Your task to perform on an android device: Search for a 3d printer on aliexpress Image 0: 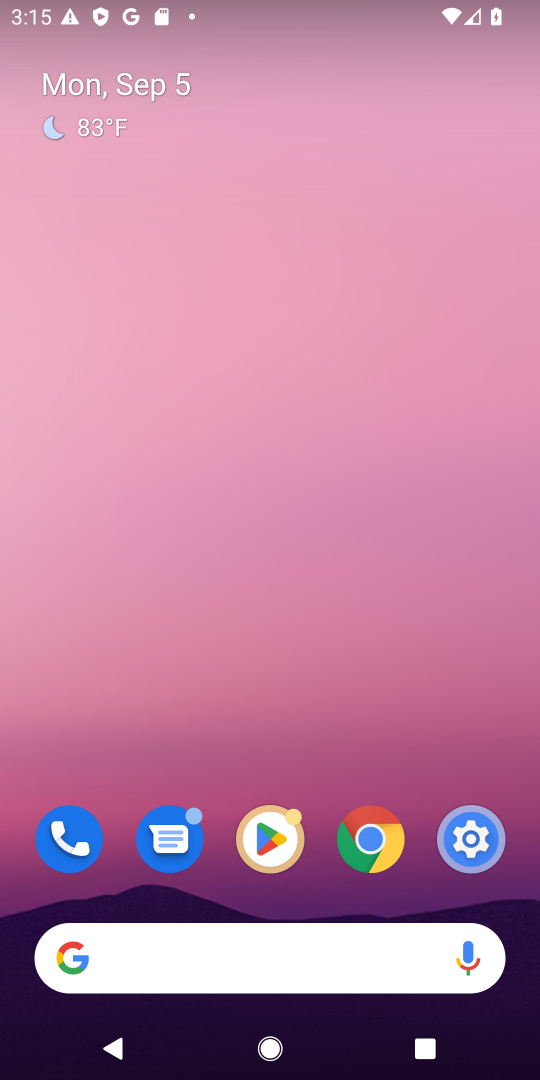
Step 0: click (306, 951)
Your task to perform on an android device: Search for a 3d printer on aliexpress Image 1: 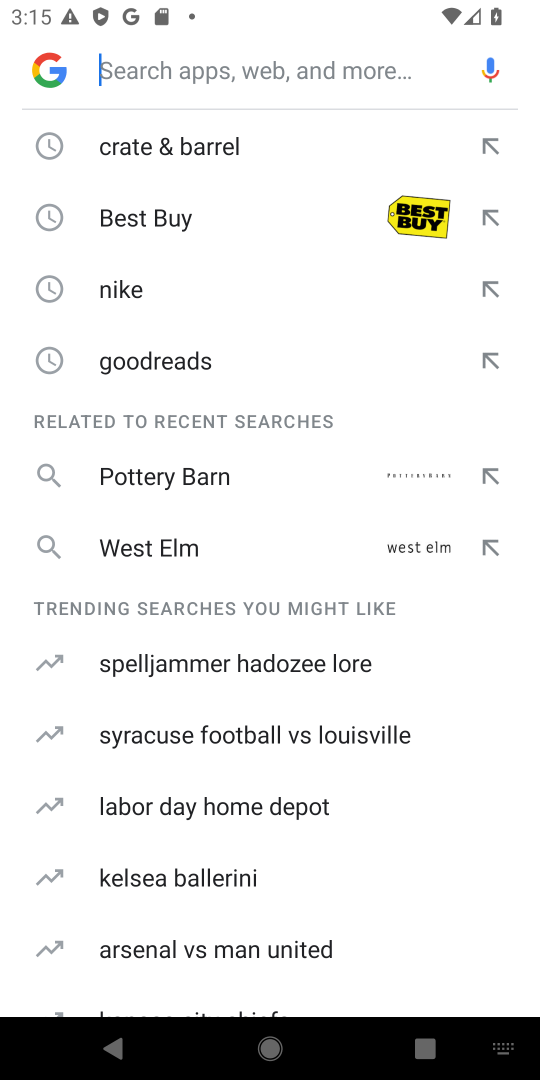
Step 1: click (187, 76)
Your task to perform on an android device: Search for a 3d printer on aliexpress Image 2: 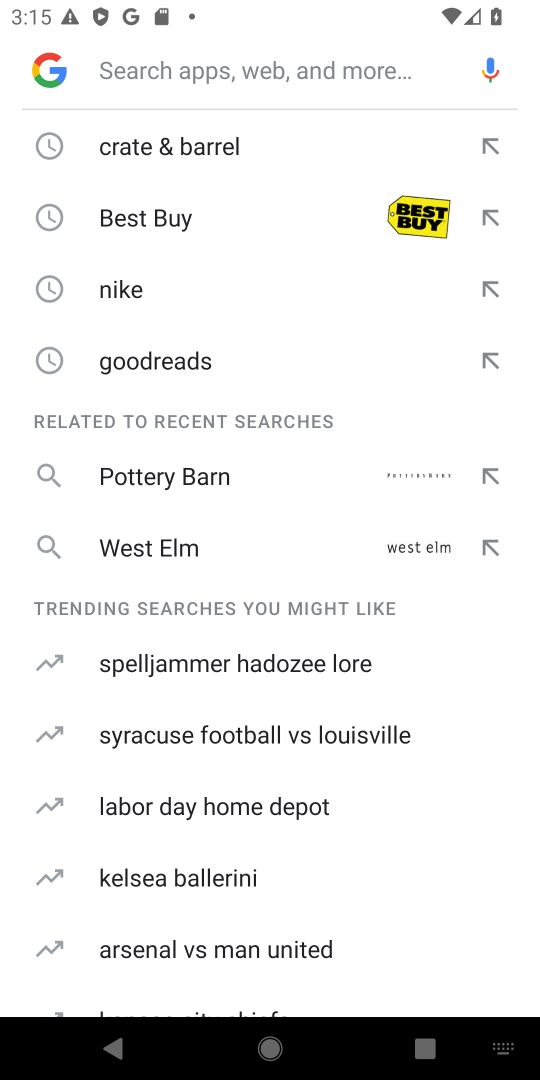
Step 2: type "aliexpress"
Your task to perform on an android device: Search for a 3d printer on aliexpress Image 3: 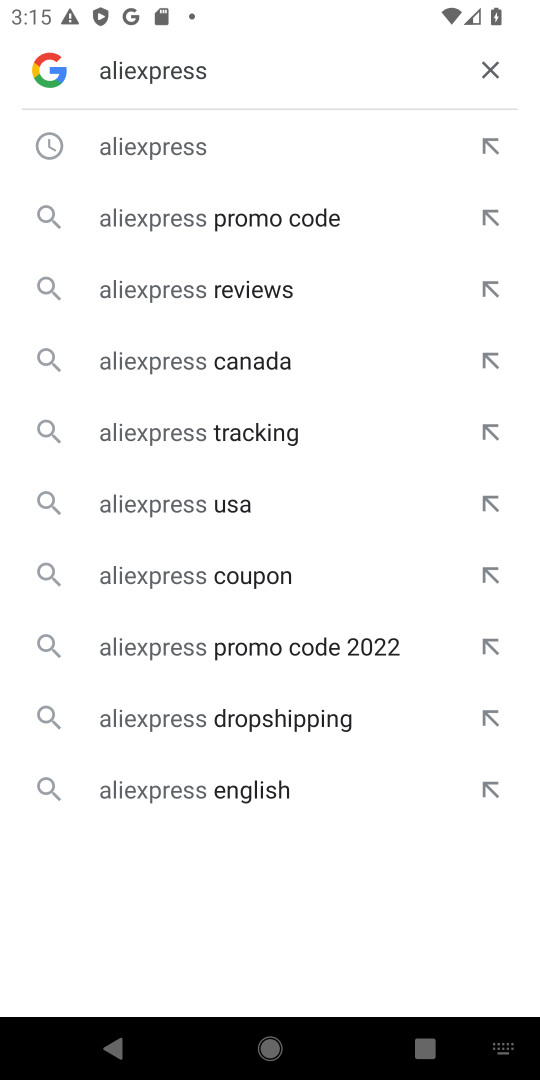
Step 3: press enter
Your task to perform on an android device: Search for a 3d printer on aliexpress Image 4: 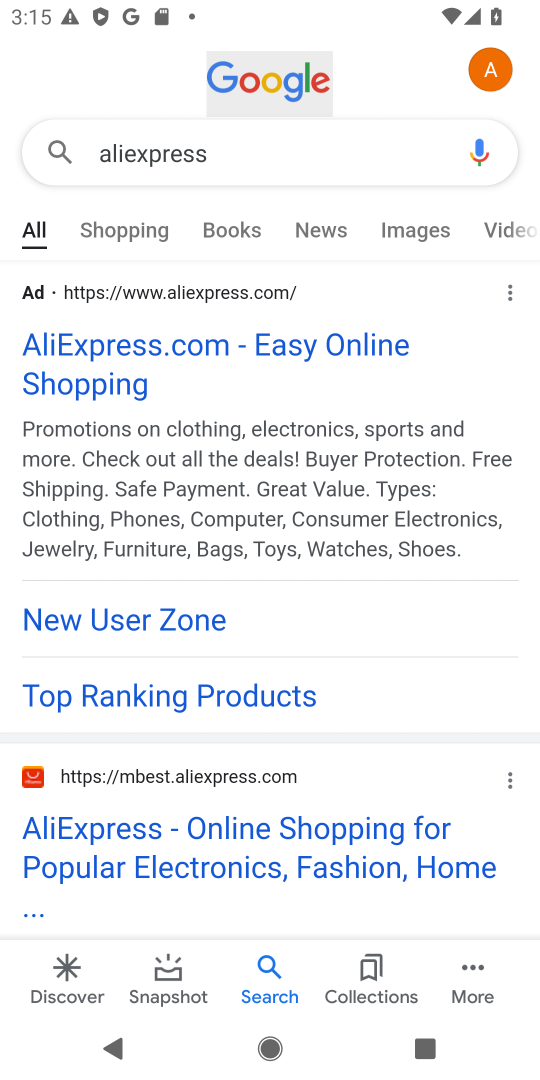
Step 4: click (183, 817)
Your task to perform on an android device: Search for a 3d printer on aliexpress Image 5: 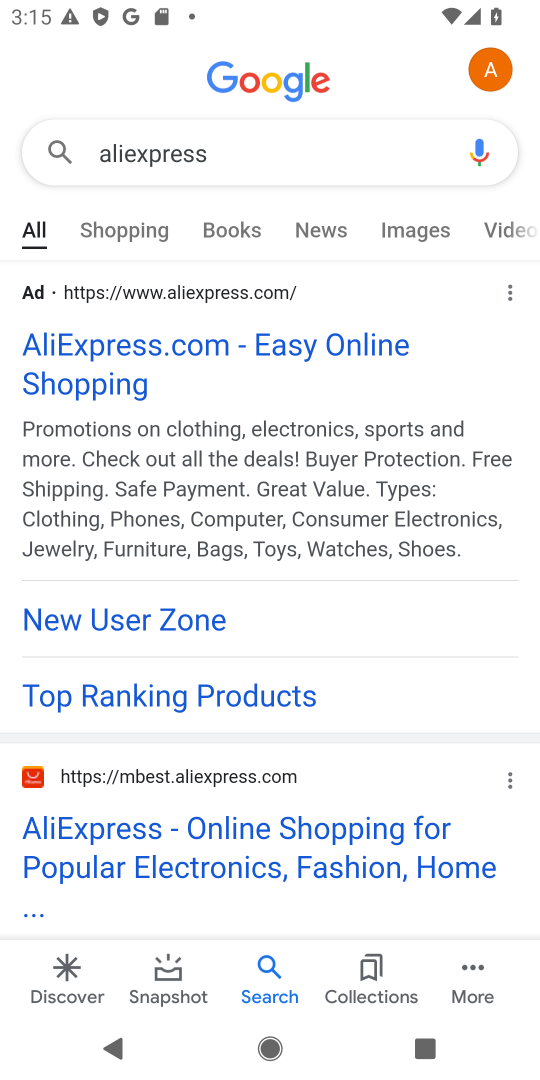
Step 5: click (243, 840)
Your task to perform on an android device: Search for a 3d printer on aliexpress Image 6: 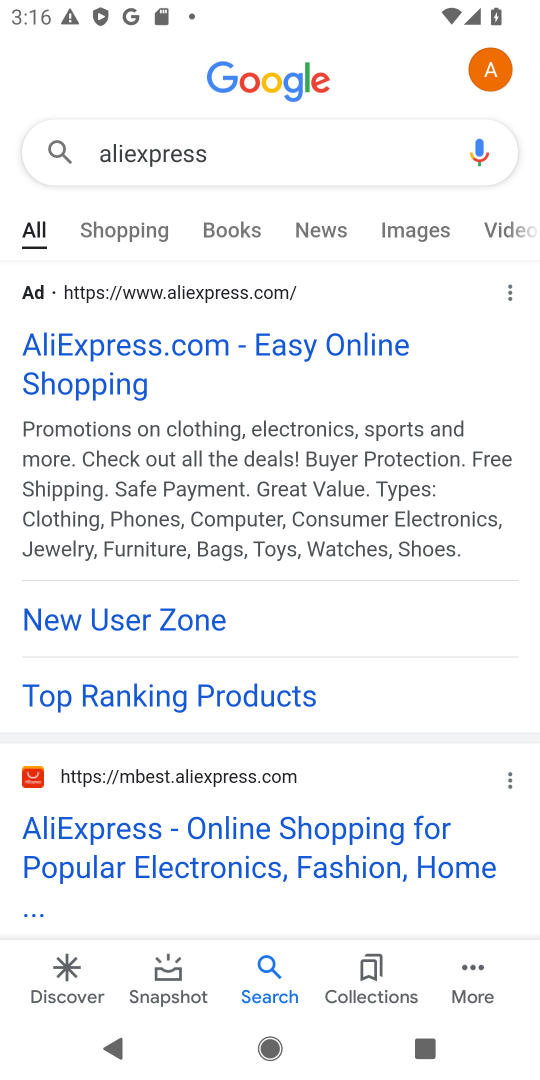
Step 6: click (222, 848)
Your task to perform on an android device: Search for a 3d printer on aliexpress Image 7: 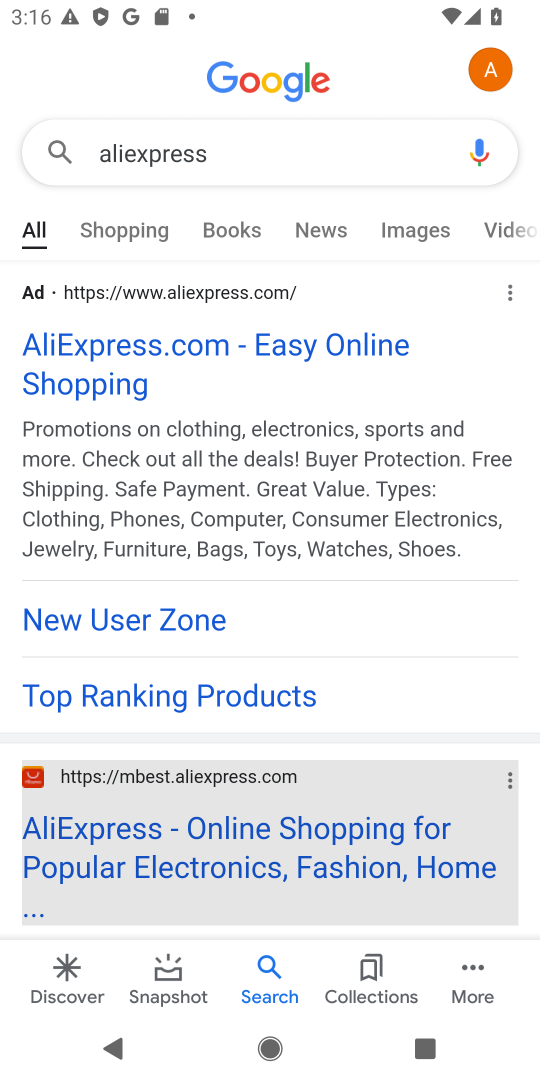
Step 7: click (220, 868)
Your task to perform on an android device: Search for a 3d printer on aliexpress Image 8: 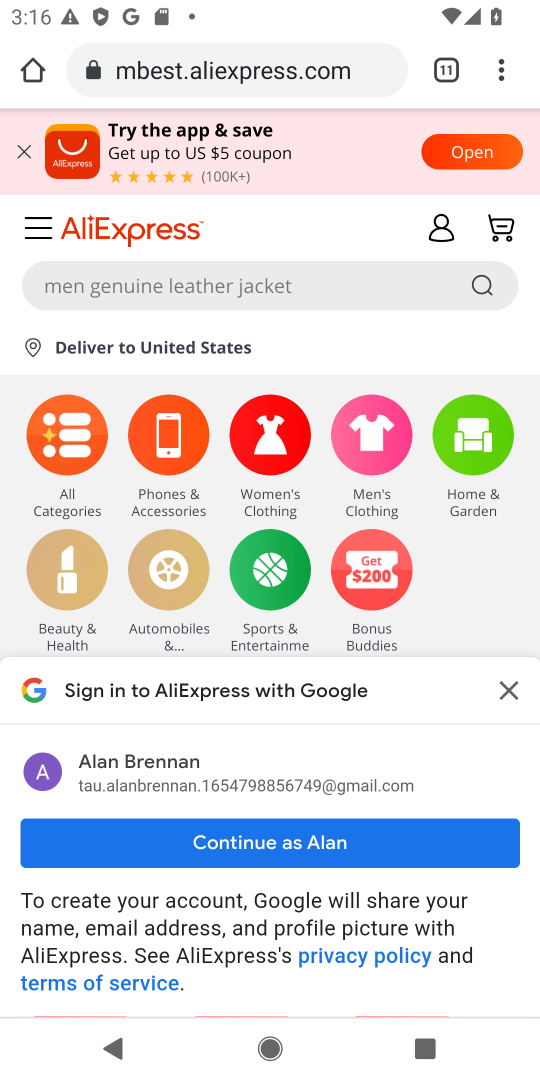
Step 8: click (511, 687)
Your task to perform on an android device: Search for a 3d printer on aliexpress Image 9: 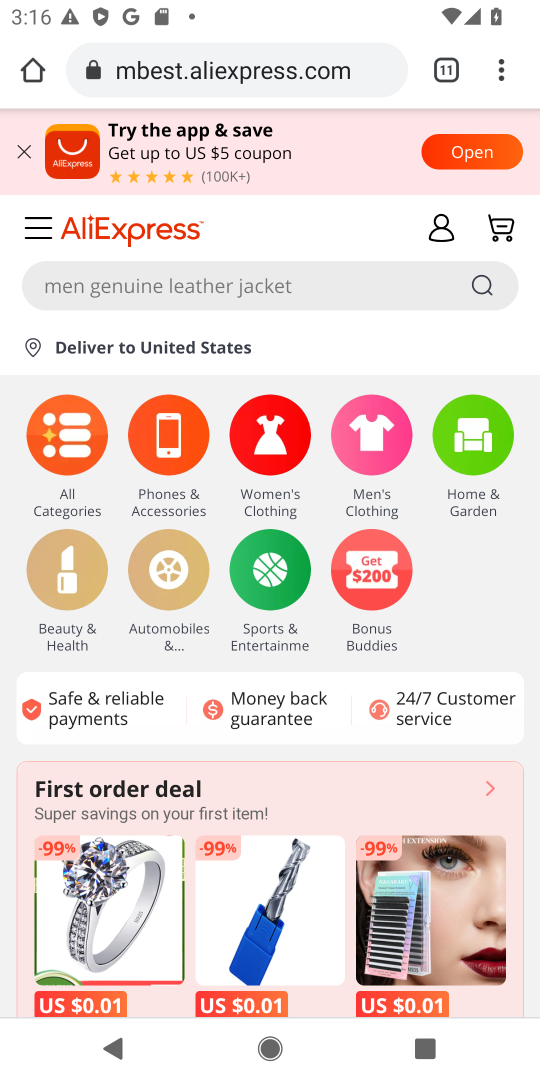
Step 9: click (143, 293)
Your task to perform on an android device: Search for a 3d printer on aliexpress Image 10: 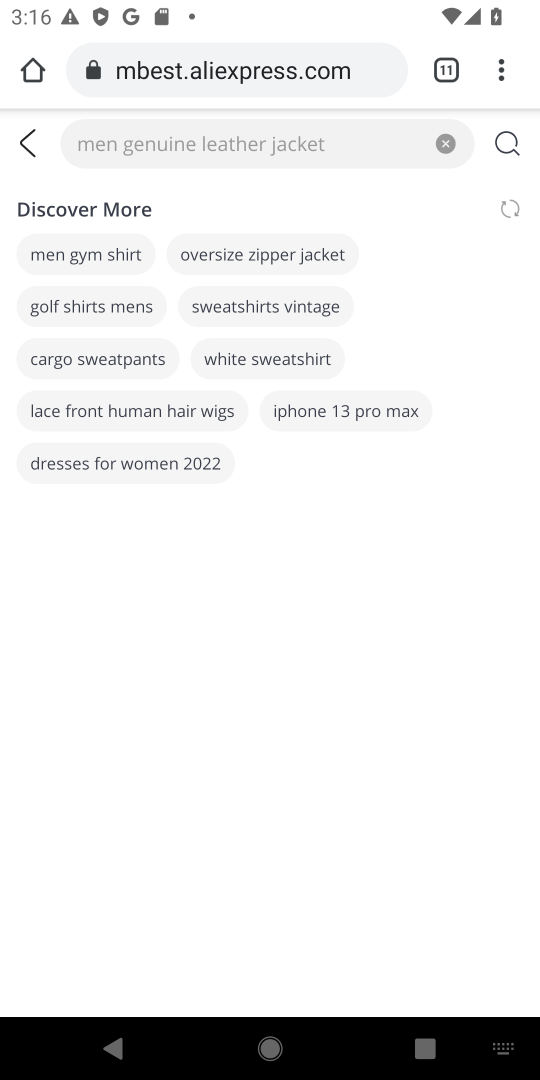
Step 10: type "3 d printer"
Your task to perform on an android device: Search for a 3d printer on aliexpress Image 11: 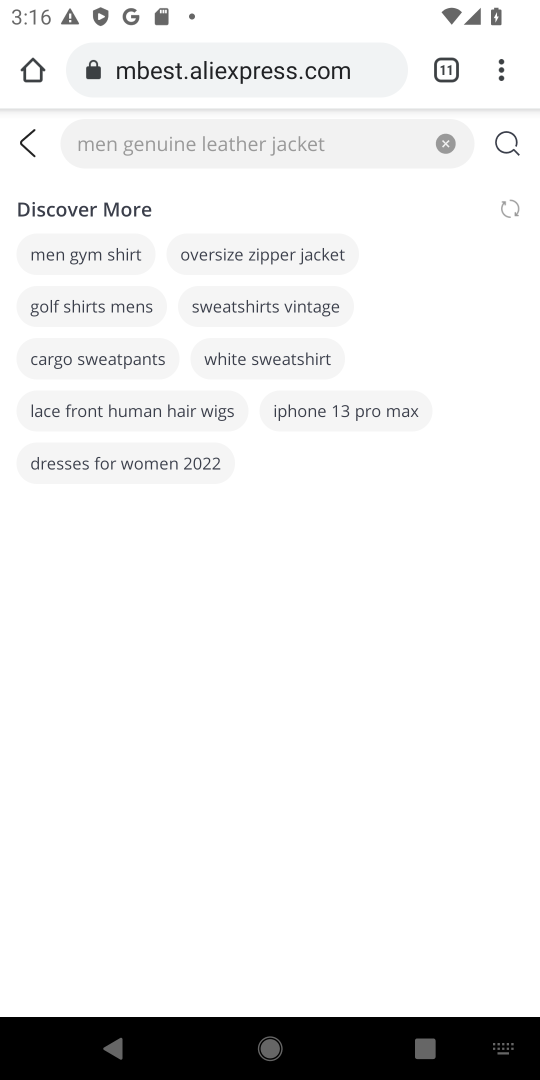
Step 11: type ""
Your task to perform on an android device: Search for a 3d printer on aliexpress Image 12: 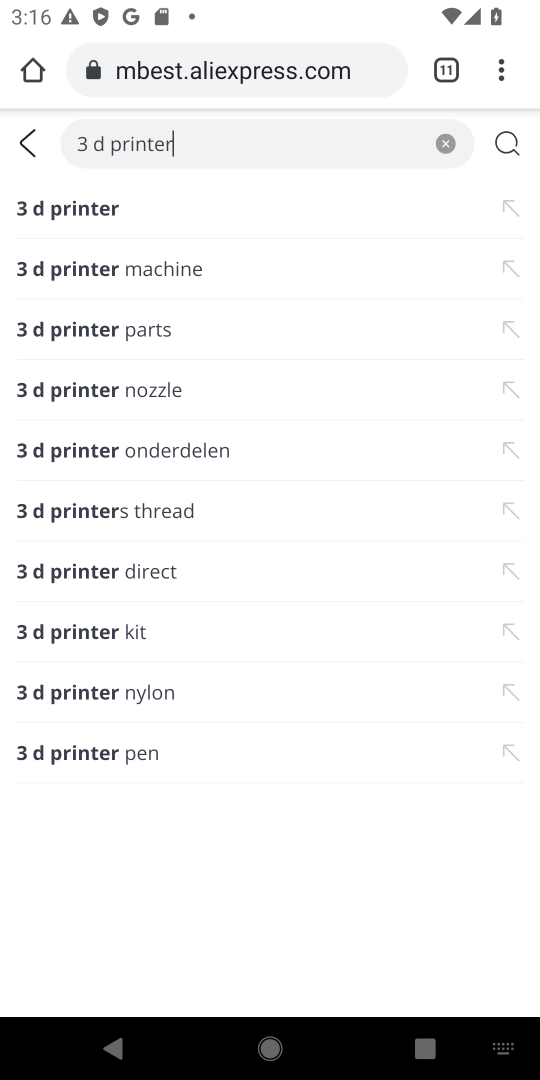
Step 12: click (182, 213)
Your task to perform on an android device: Search for a 3d printer on aliexpress Image 13: 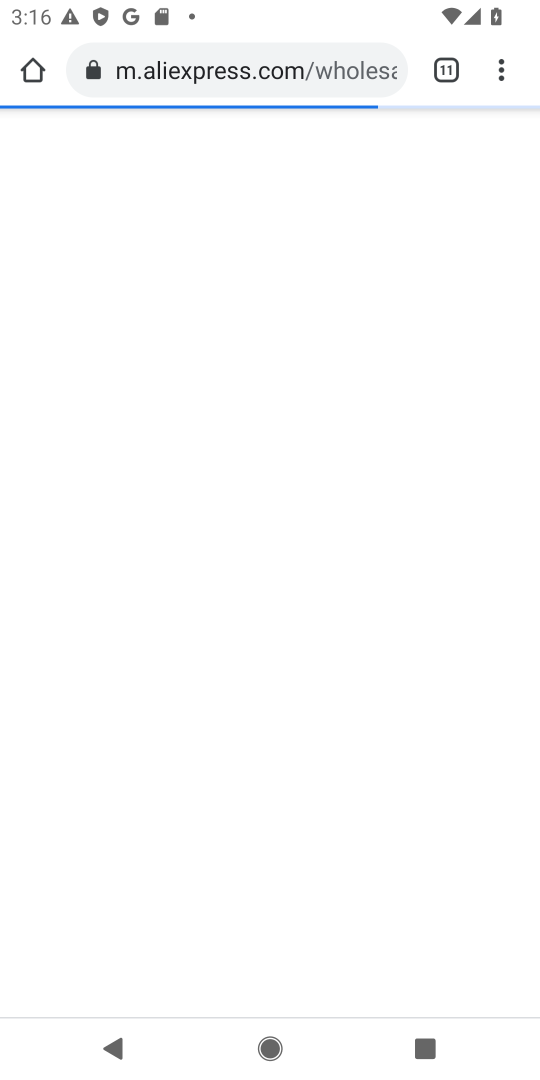
Step 13: click (145, 218)
Your task to perform on an android device: Search for a 3d printer on aliexpress Image 14: 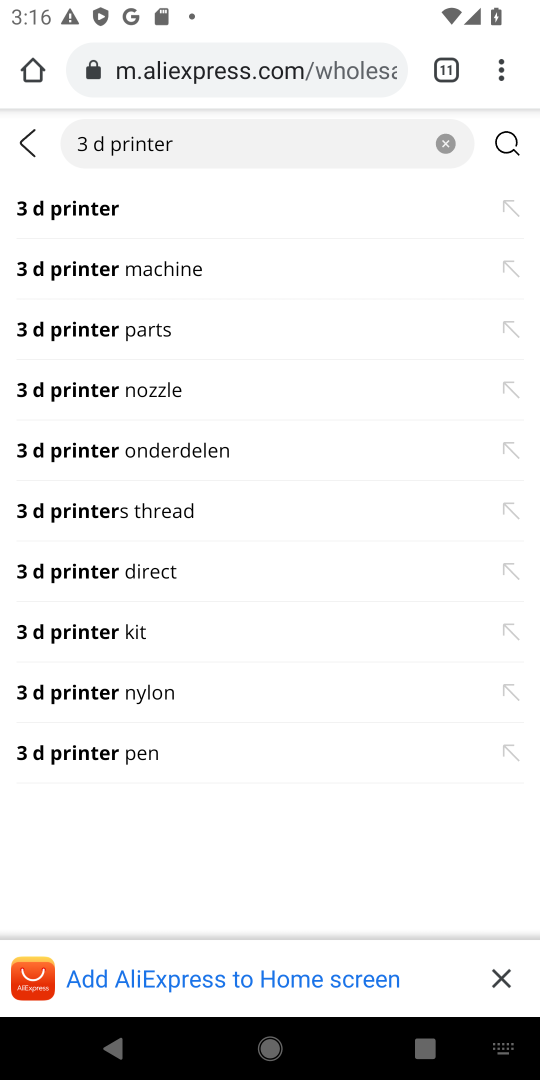
Step 14: press enter
Your task to perform on an android device: Search for a 3d printer on aliexpress Image 15: 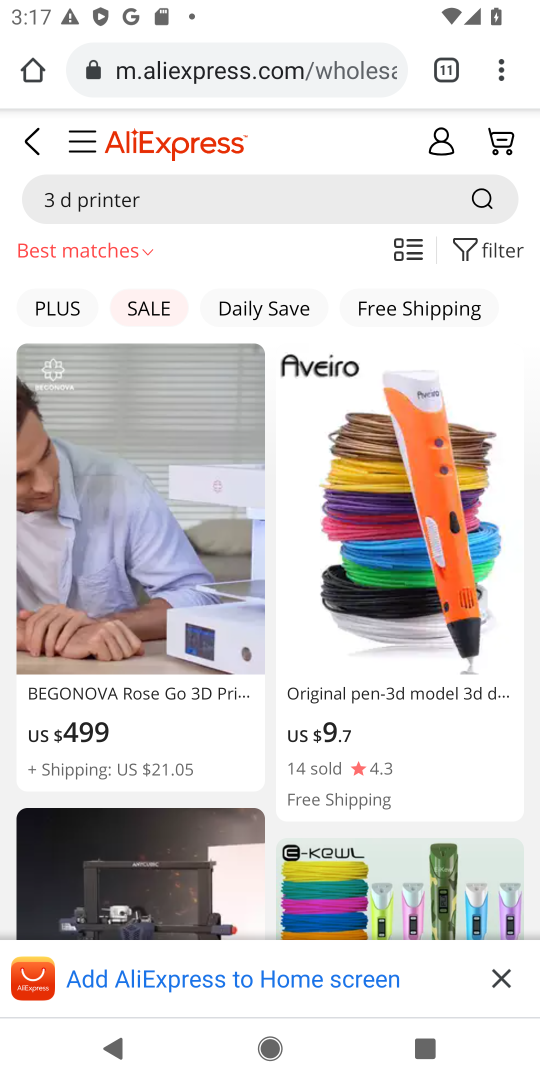
Step 15: drag from (268, 822) to (268, 773)
Your task to perform on an android device: Search for a 3d printer on aliexpress Image 16: 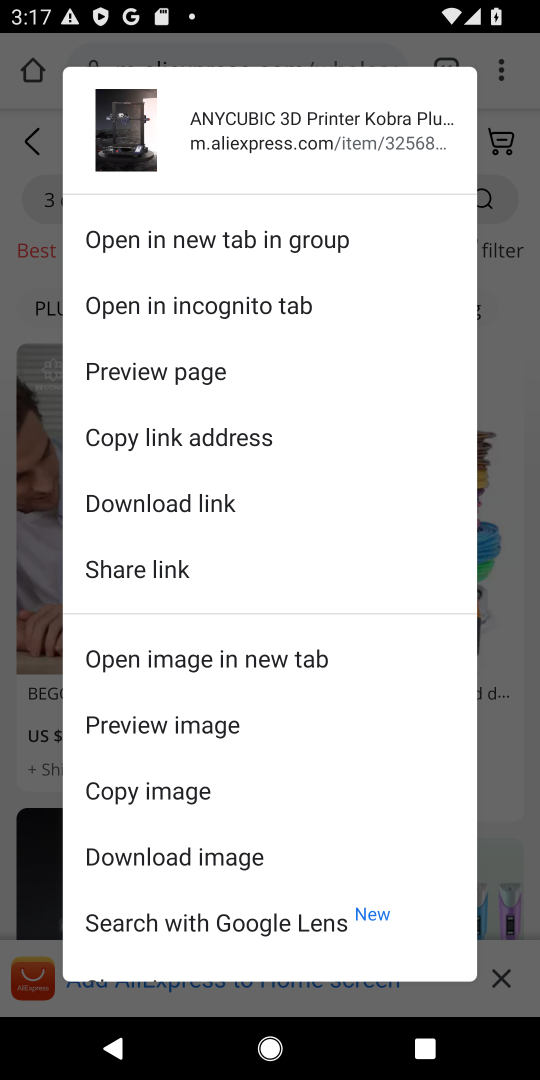
Step 16: click (521, 279)
Your task to perform on an android device: Search for a 3d printer on aliexpress Image 17: 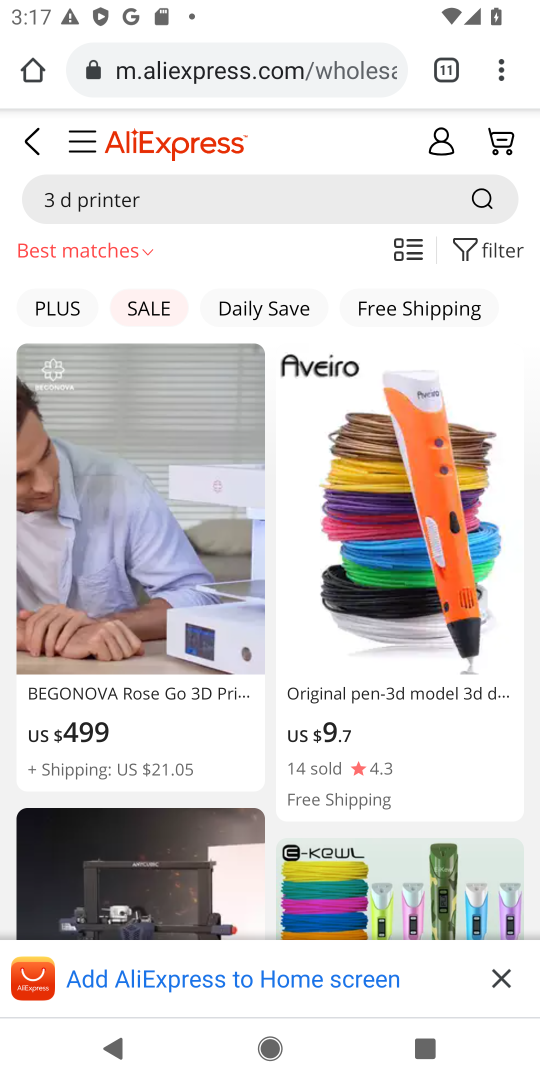
Step 17: drag from (202, 293) to (255, 250)
Your task to perform on an android device: Search for a 3d printer on aliexpress Image 18: 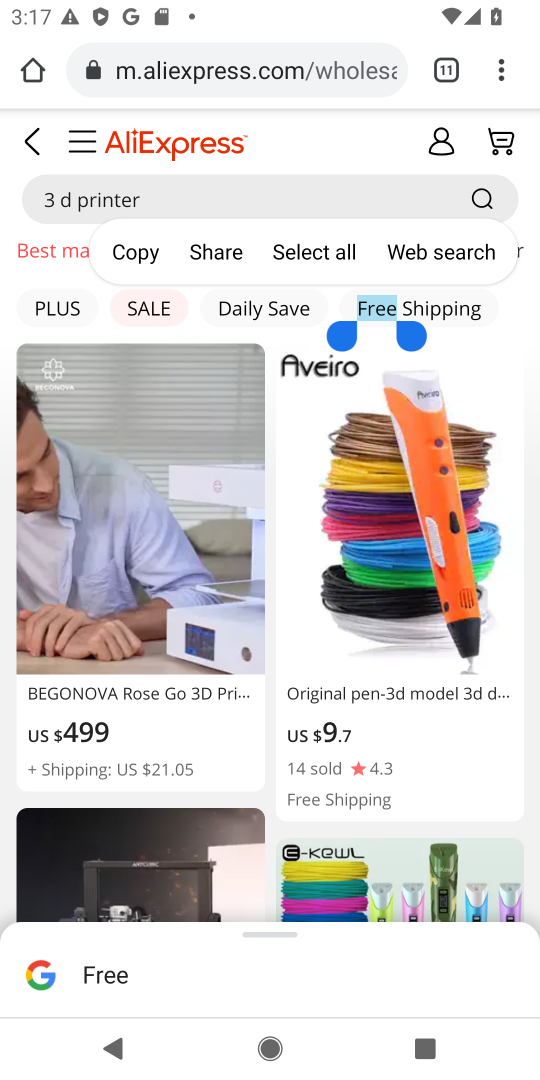
Step 18: drag from (267, 818) to (268, 759)
Your task to perform on an android device: Search for a 3d printer on aliexpress Image 19: 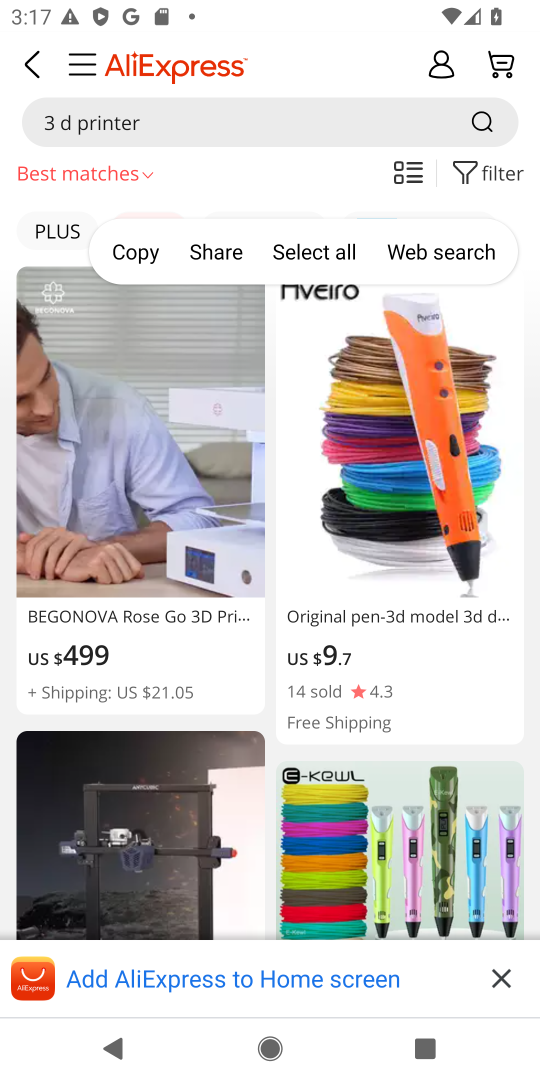
Step 19: drag from (272, 730) to (260, 672)
Your task to perform on an android device: Search for a 3d printer on aliexpress Image 20: 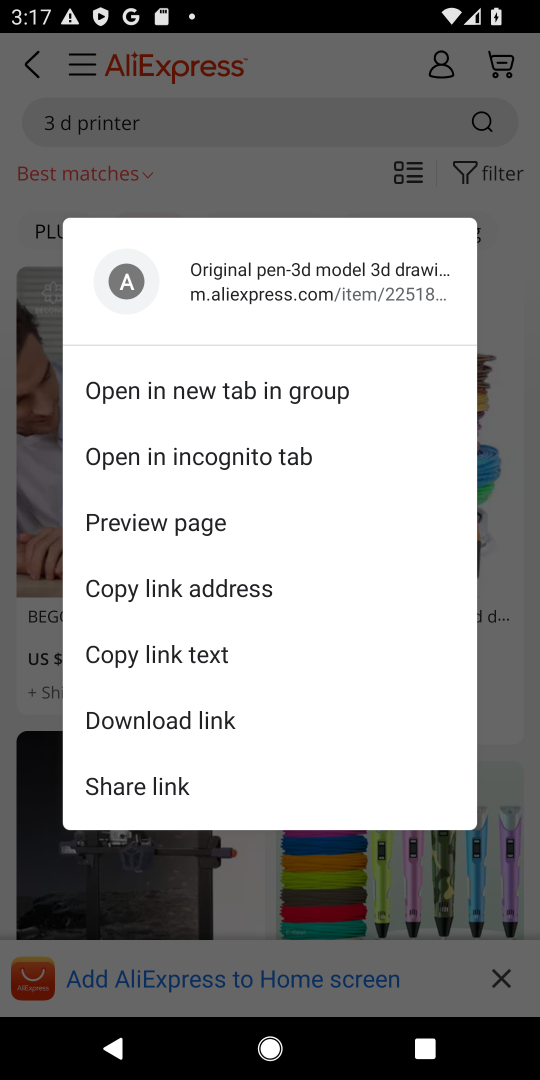
Step 20: click (241, 132)
Your task to perform on an android device: Search for a 3d printer on aliexpress Image 21: 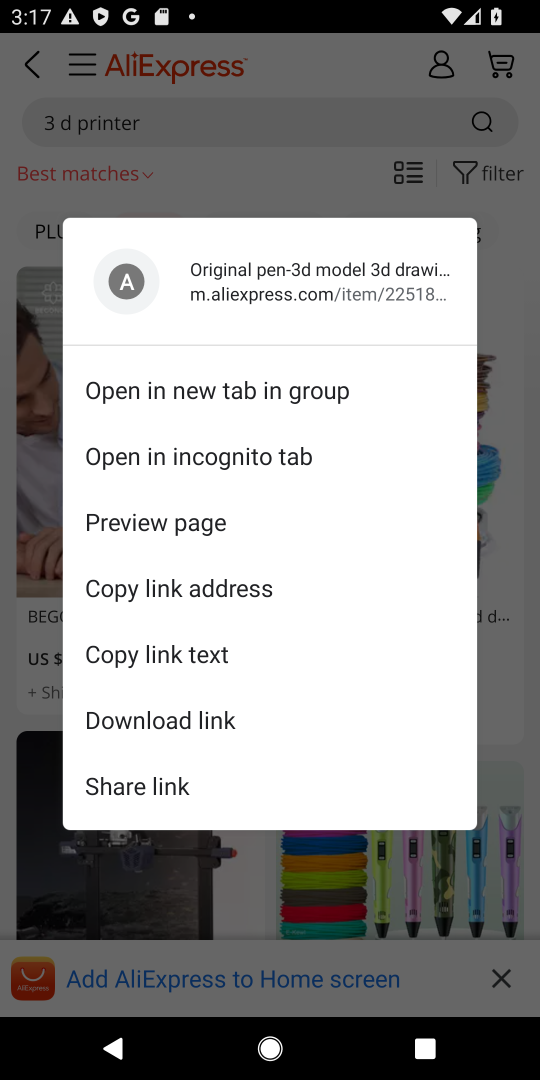
Step 21: click (252, 170)
Your task to perform on an android device: Search for a 3d printer on aliexpress Image 22: 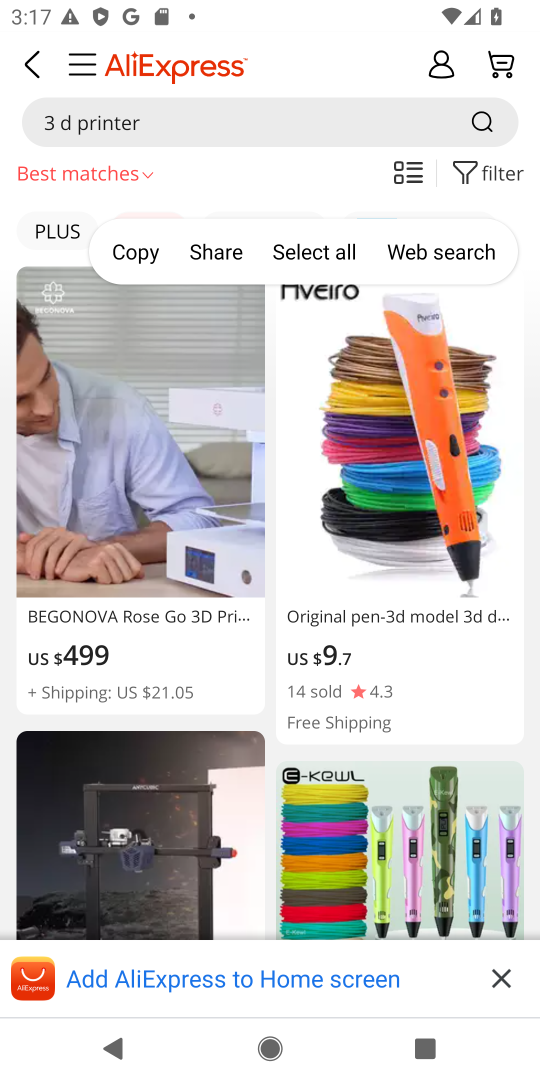
Step 22: task complete